Your task to perform on an android device: remove spam from my inbox in the gmail app Image 0: 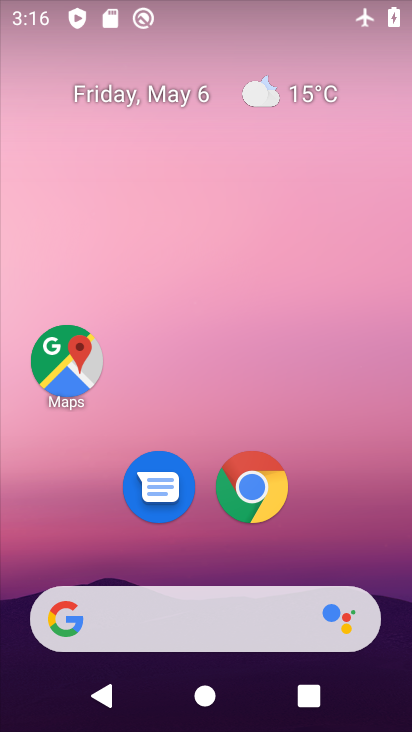
Step 0: drag from (148, 582) to (266, 27)
Your task to perform on an android device: remove spam from my inbox in the gmail app Image 1: 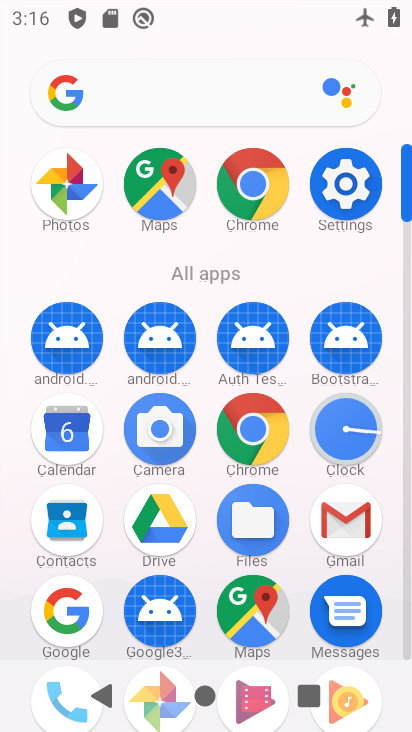
Step 1: drag from (89, 672) to (222, 358)
Your task to perform on an android device: remove spam from my inbox in the gmail app Image 2: 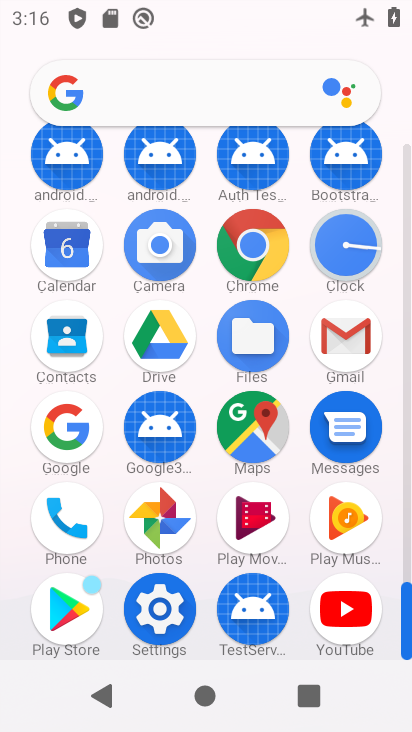
Step 2: click (340, 342)
Your task to perform on an android device: remove spam from my inbox in the gmail app Image 3: 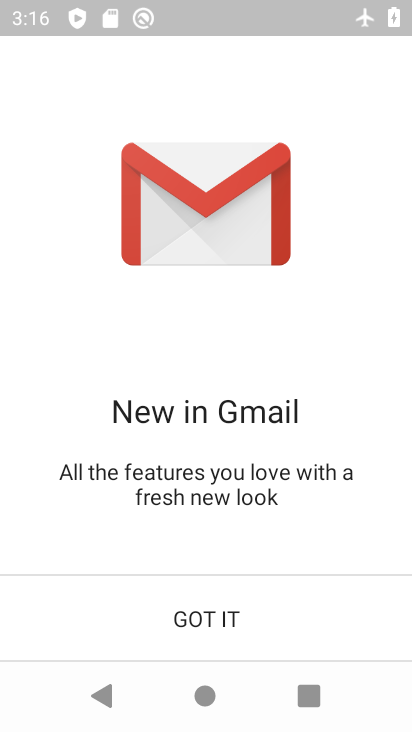
Step 3: click (218, 616)
Your task to perform on an android device: remove spam from my inbox in the gmail app Image 4: 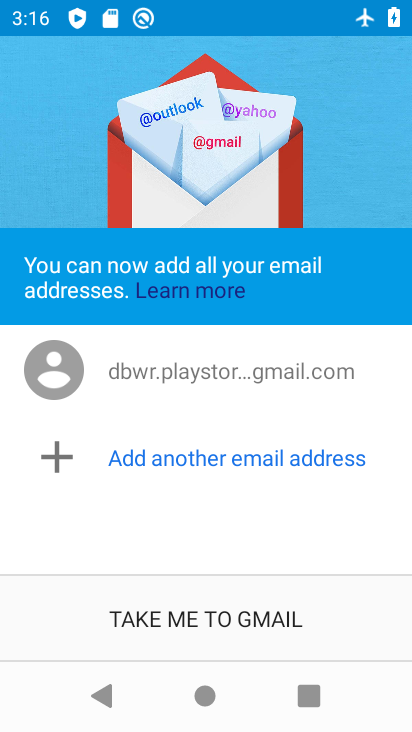
Step 4: click (218, 616)
Your task to perform on an android device: remove spam from my inbox in the gmail app Image 5: 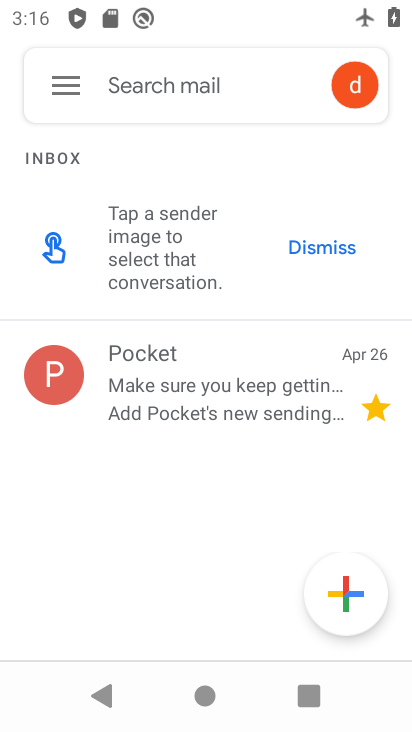
Step 5: click (61, 82)
Your task to perform on an android device: remove spam from my inbox in the gmail app Image 6: 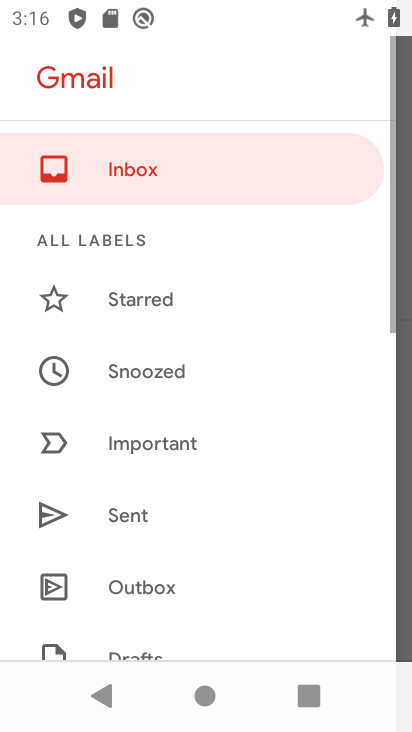
Step 6: drag from (182, 586) to (255, 339)
Your task to perform on an android device: remove spam from my inbox in the gmail app Image 7: 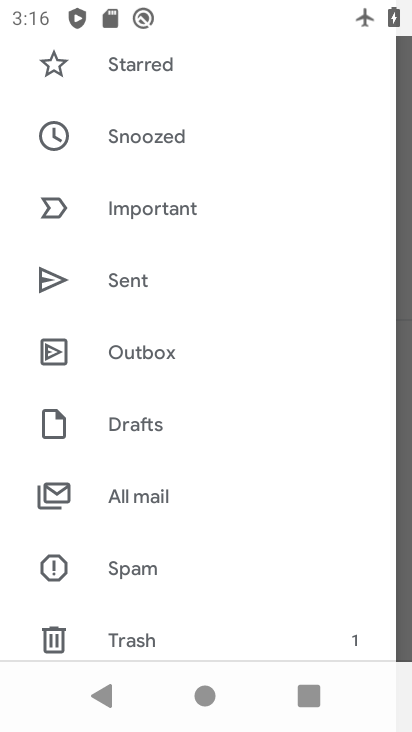
Step 7: click (162, 575)
Your task to perform on an android device: remove spam from my inbox in the gmail app Image 8: 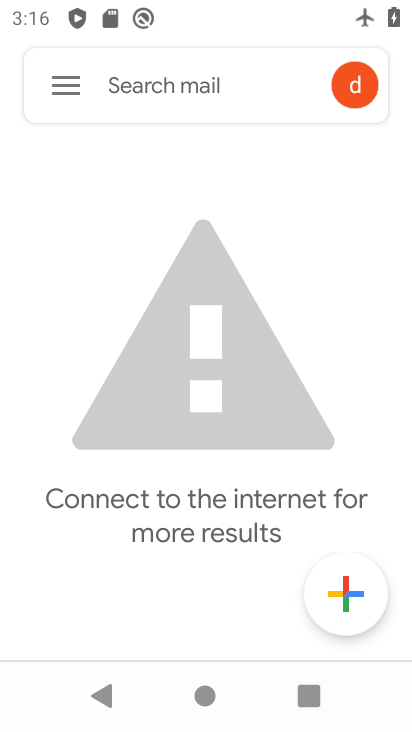
Step 8: task complete